Your task to perform on an android device: see sites visited before in the chrome app Image 0: 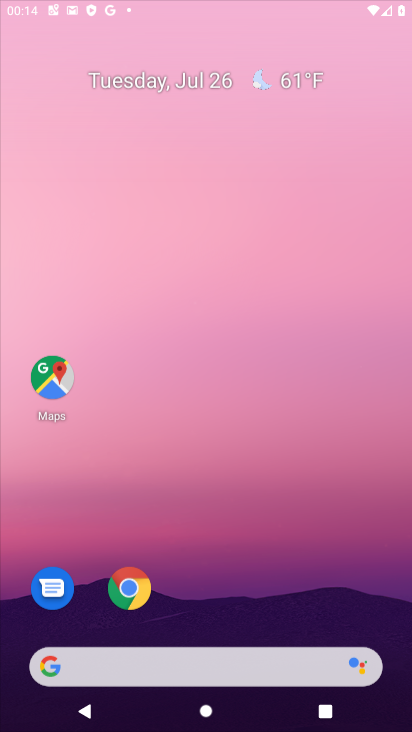
Step 0: press home button
Your task to perform on an android device: see sites visited before in the chrome app Image 1: 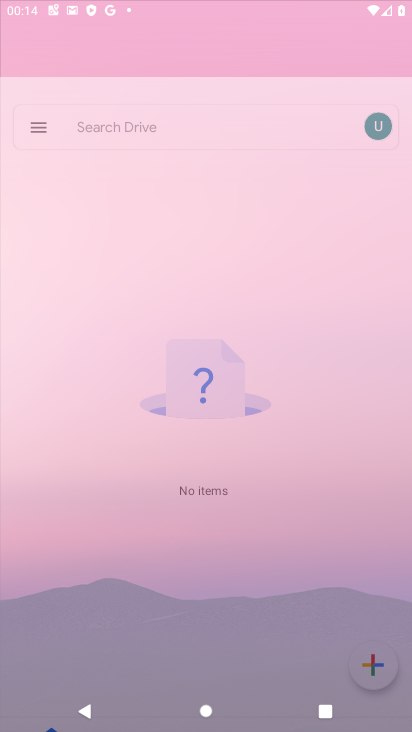
Step 1: drag from (227, 578) to (212, 96)
Your task to perform on an android device: see sites visited before in the chrome app Image 2: 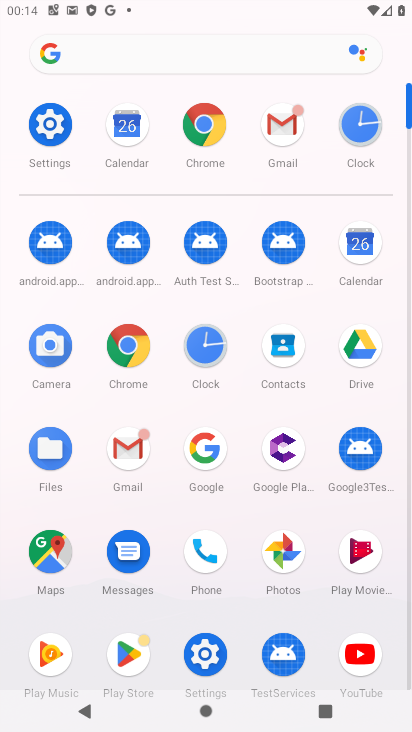
Step 2: click (49, 117)
Your task to perform on an android device: see sites visited before in the chrome app Image 3: 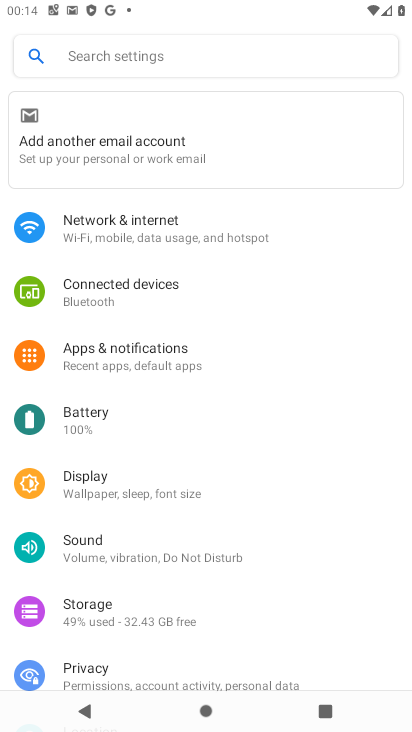
Step 3: press home button
Your task to perform on an android device: see sites visited before in the chrome app Image 4: 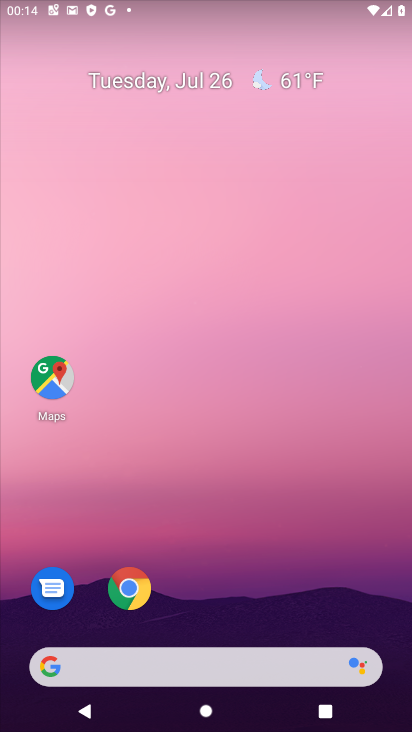
Step 4: click (122, 587)
Your task to perform on an android device: see sites visited before in the chrome app Image 5: 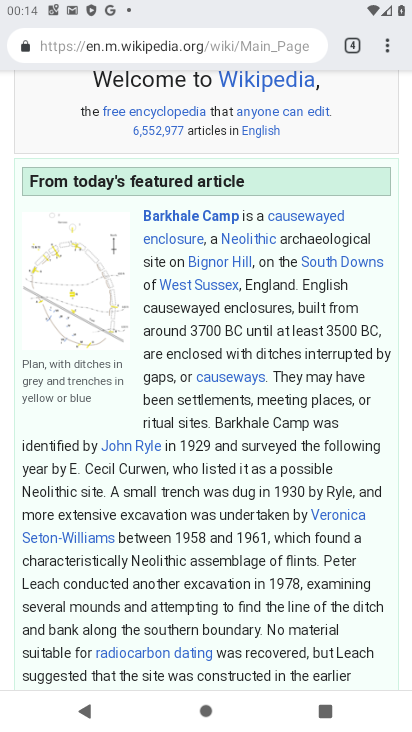
Step 5: click (386, 46)
Your task to perform on an android device: see sites visited before in the chrome app Image 6: 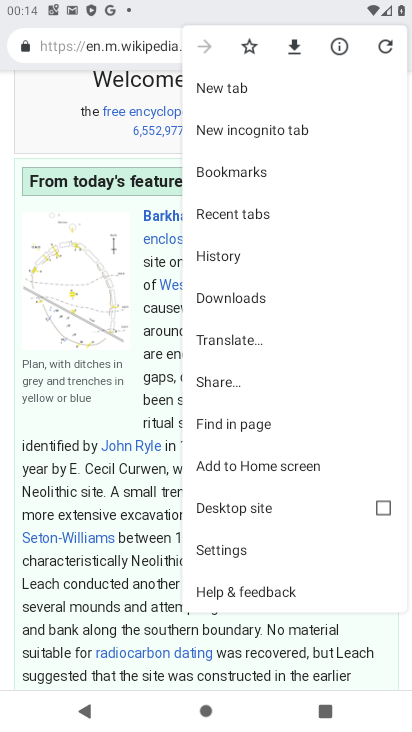
Step 6: click (386, 46)
Your task to perform on an android device: see sites visited before in the chrome app Image 7: 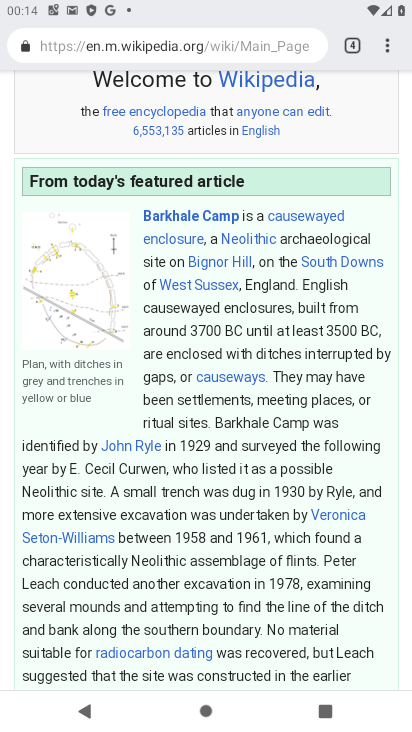
Step 7: click (386, 46)
Your task to perform on an android device: see sites visited before in the chrome app Image 8: 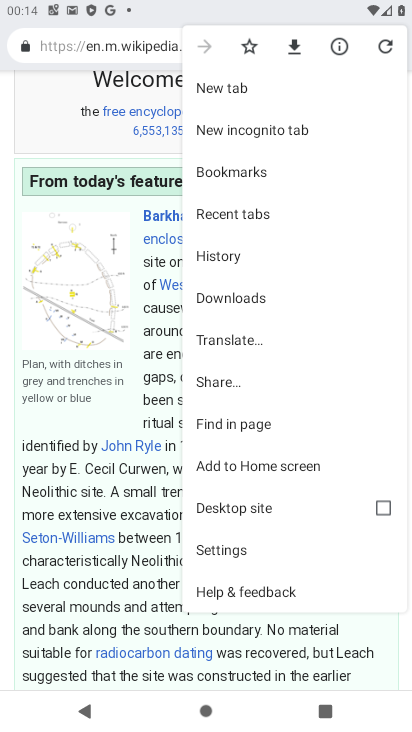
Step 8: click (249, 250)
Your task to perform on an android device: see sites visited before in the chrome app Image 9: 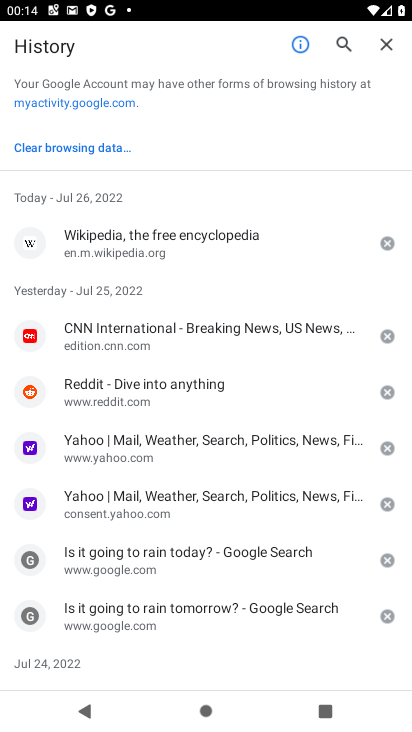
Step 9: task complete